Your task to perform on an android device: Clear all items from cart on bestbuy.com. Add "macbook pro" to the cart on bestbuy.com Image 0: 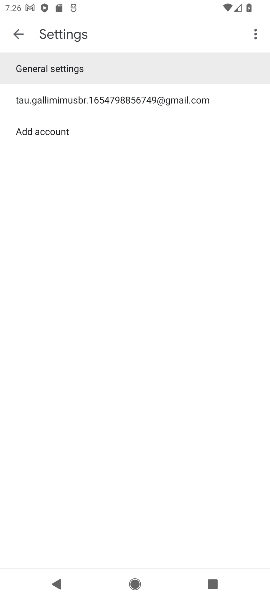
Step 0: press home button
Your task to perform on an android device: Clear all items from cart on bestbuy.com. Add "macbook pro" to the cart on bestbuy.com Image 1: 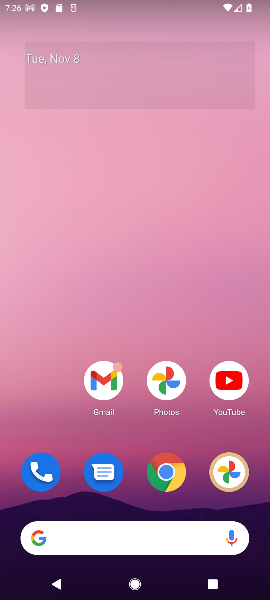
Step 1: click (170, 471)
Your task to perform on an android device: Clear all items from cart on bestbuy.com. Add "macbook pro" to the cart on bestbuy.com Image 2: 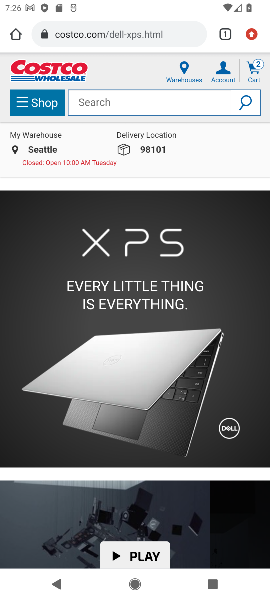
Step 2: click (147, 32)
Your task to perform on an android device: Clear all items from cart on bestbuy.com. Add "macbook pro" to the cart on bestbuy.com Image 3: 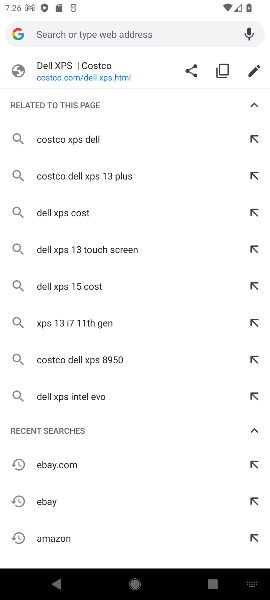
Step 3: drag from (58, 515) to (110, 157)
Your task to perform on an android device: Clear all items from cart on bestbuy.com. Add "macbook pro" to the cart on bestbuy.com Image 4: 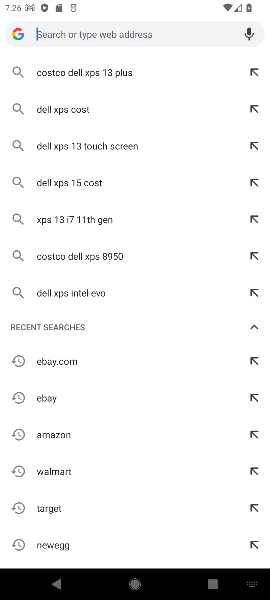
Step 4: drag from (143, 314) to (159, 499)
Your task to perform on an android device: Clear all items from cart on bestbuy.com. Add "macbook pro" to the cart on bestbuy.com Image 5: 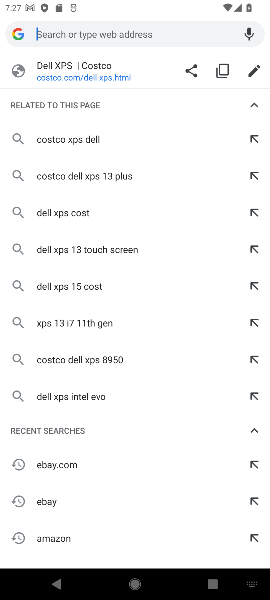
Step 5: type "bestbuy.com"
Your task to perform on an android device: Clear all items from cart on bestbuy.com. Add "macbook pro" to the cart on bestbuy.com Image 6: 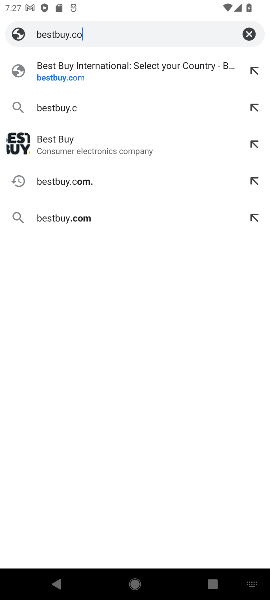
Step 6: press enter
Your task to perform on an android device: Clear all items from cart on bestbuy.com. Add "macbook pro" to the cart on bestbuy.com Image 7: 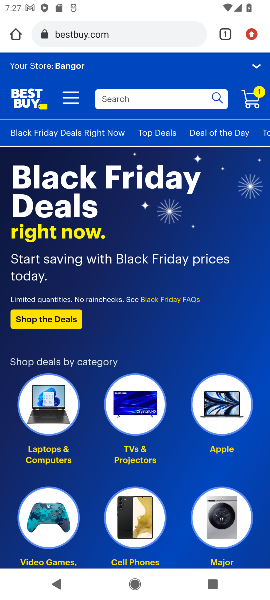
Step 7: click (143, 97)
Your task to perform on an android device: Clear all items from cart on bestbuy.com. Add "macbook pro" to the cart on bestbuy.com Image 8: 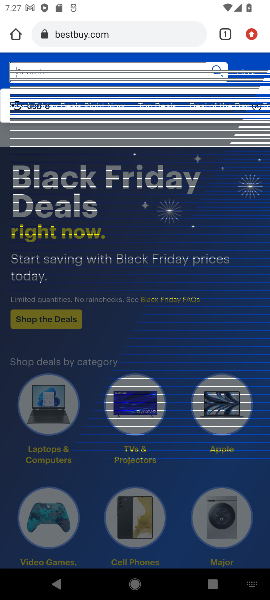
Step 8: type "macbook pro"
Your task to perform on an android device: Clear all items from cart on bestbuy.com. Add "macbook pro" to the cart on bestbuy.com Image 9: 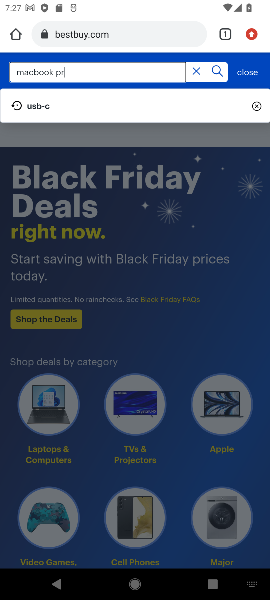
Step 9: press enter
Your task to perform on an android device: Clear all items from cart on bestbuy.com. Add "macbook pro" to the cart on bestbuy.com Image 10: 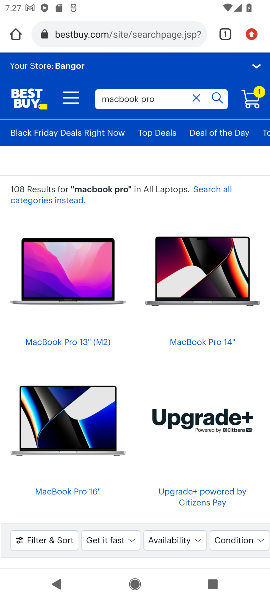
Step 10: click (77, 294)
Your task to perform on an android device: Clear all items from cart on bestbuy.com. Add "macbook pro" to the cart on bestbuy.com Image 11: 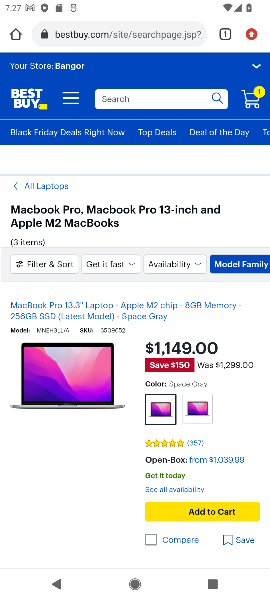
Step 11: drag from (98, 472) to (201, 54)
Your task to perform on an android device: Clear all items from cart on bestbuy.com. Add "macbook pro" to the cart on bestbuy.com Image 12: 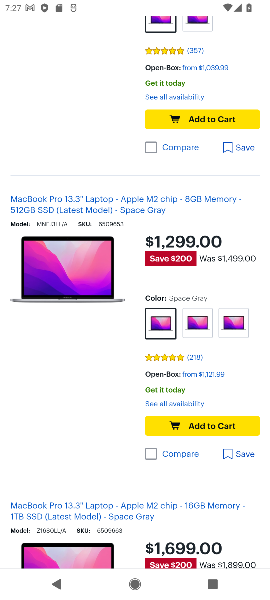
Step 12: drag from (139, 135) to (169, 492)
Your task to perform on an android device: Clear all items from cart on bestbuy.com. Add "macbook pro" to the cart on bestbuy.com Image 13: 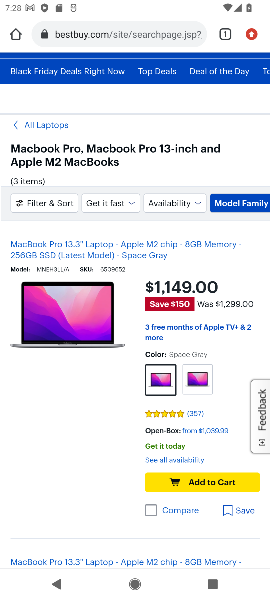
Step 13: click (210, 478)
Your task to perform on an android device: Clear all items from cart on bestbuy.com. Add "macbook pro" to the cart on bestbuy.com Image 14: 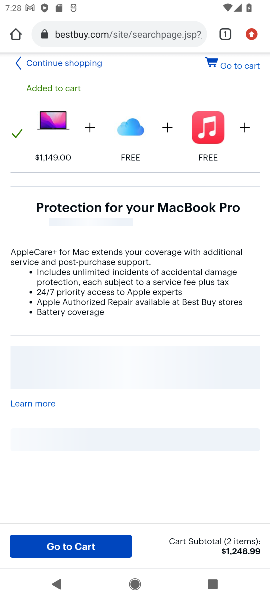
Step 14: click (237, 66)
Your task to perform on an android device: Clear all items from cart on bestbuy.com. Add "macbook pro" to the cart on bestbuy.com Image 15: 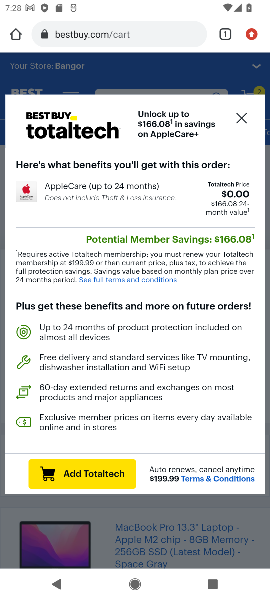
Step 15: click (247, 120)
Your task to perform on an android device: Clear all items from cart on bestbuy.com. Add "macbook pro" to the cart on bestbuy.com Image 16: 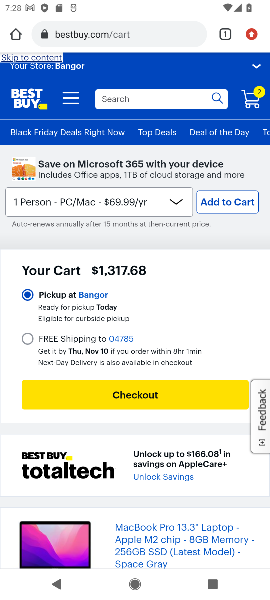
Step 16: drag from (116, 479) to (181, 100)
Your task to perform on an android device: Clear all items from cart on bestbuy.com. Add "macbook pro" to the cart on bestbuy.com Image 17: 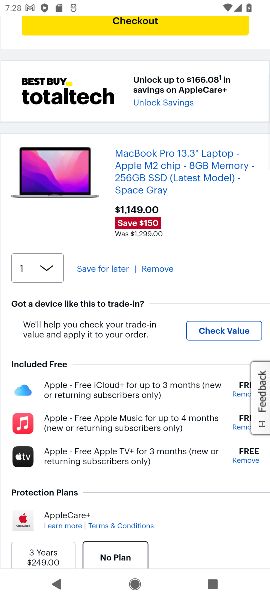
Step 17: drag from (154, 304) to (161, 153)
Your task to perform on an android device: Clear all items from cart on bestbuy.com. Add "macbook pro" to the cart on bestbuy.com Image 18: 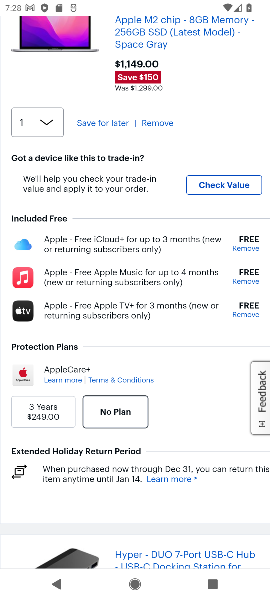
Step 18: drag from (94, 461) to (136, 88)
Your task to perform on an android device: Clear all items from cart on bestbuy.com. Add "macbook pro" to the cart on bestbuy.com Image 19: 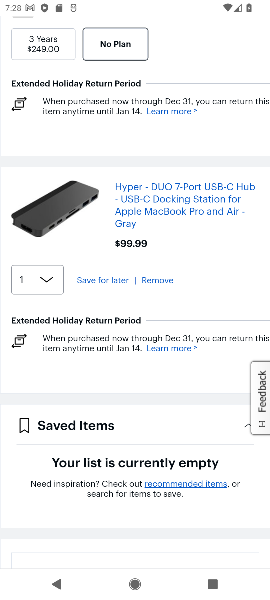
Step 19: click (160, 279)
Your task to perform on an android device: Clear all items from cart on bestbuy.com. Add "macbook pro" to the cart on bestbuy.com Image 20: 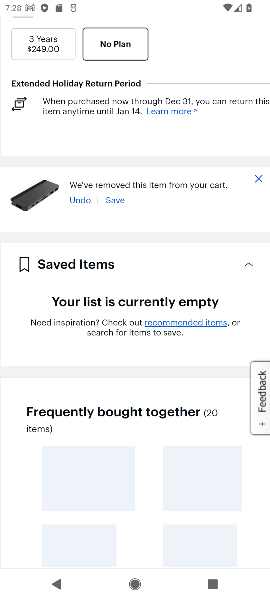
Step 20: task complete